Your task to perform on an android device: Open the Play Movies app and select the watchlist tab. Image 0: 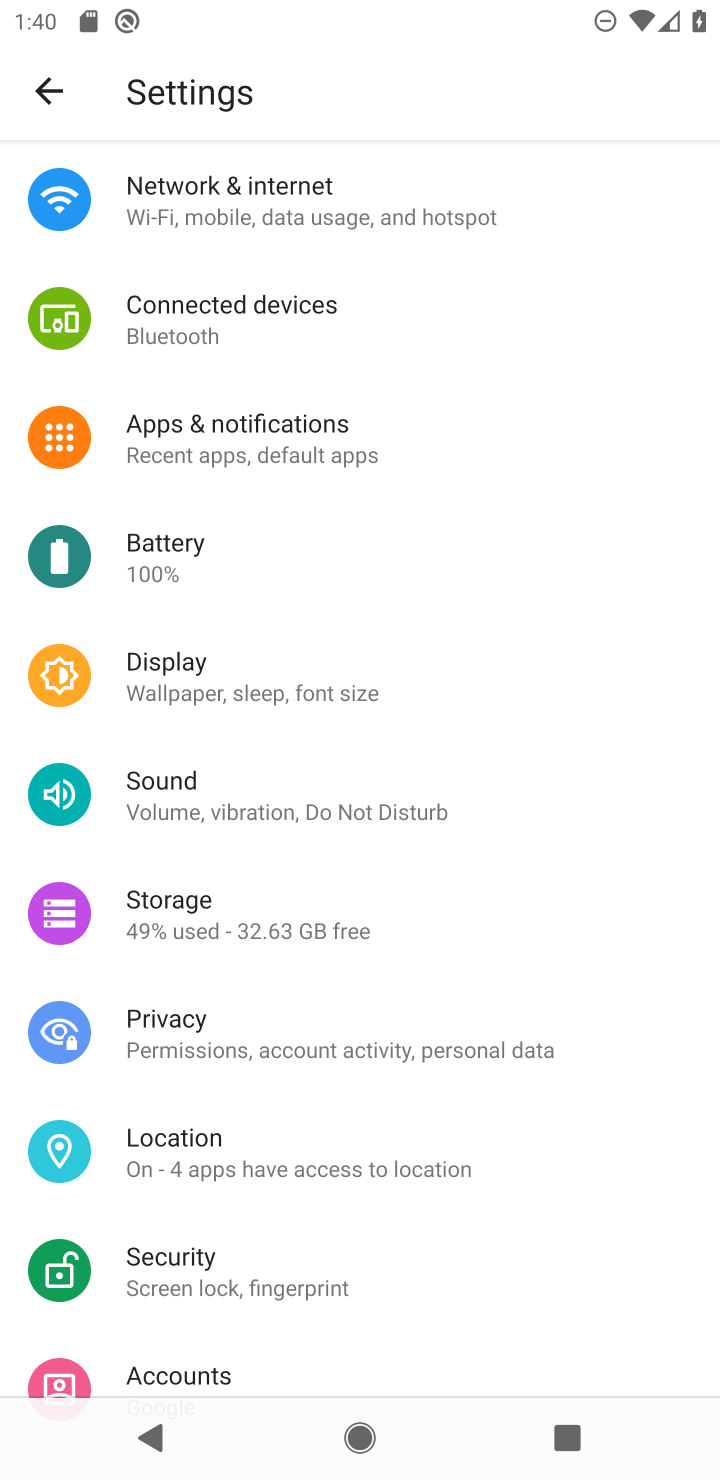
Step 0: press home button
Your task to perform on an android device: Open the Play Movies app and select the watchlist tab. Image 1: 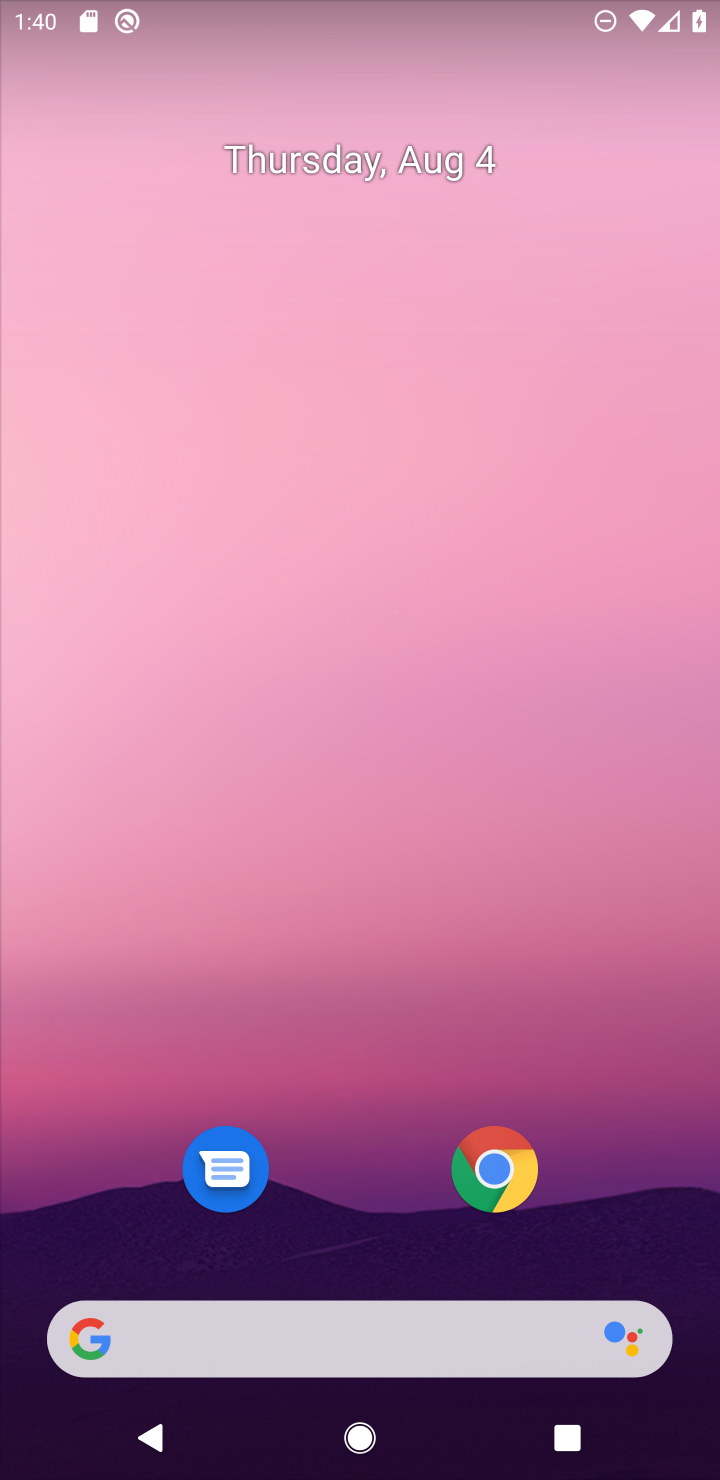
Step 1: drag from (408, 976) to (426, 40)
Your task to perform on an android device: Open the Play Movies app and select the watchlist tab. Image 2: 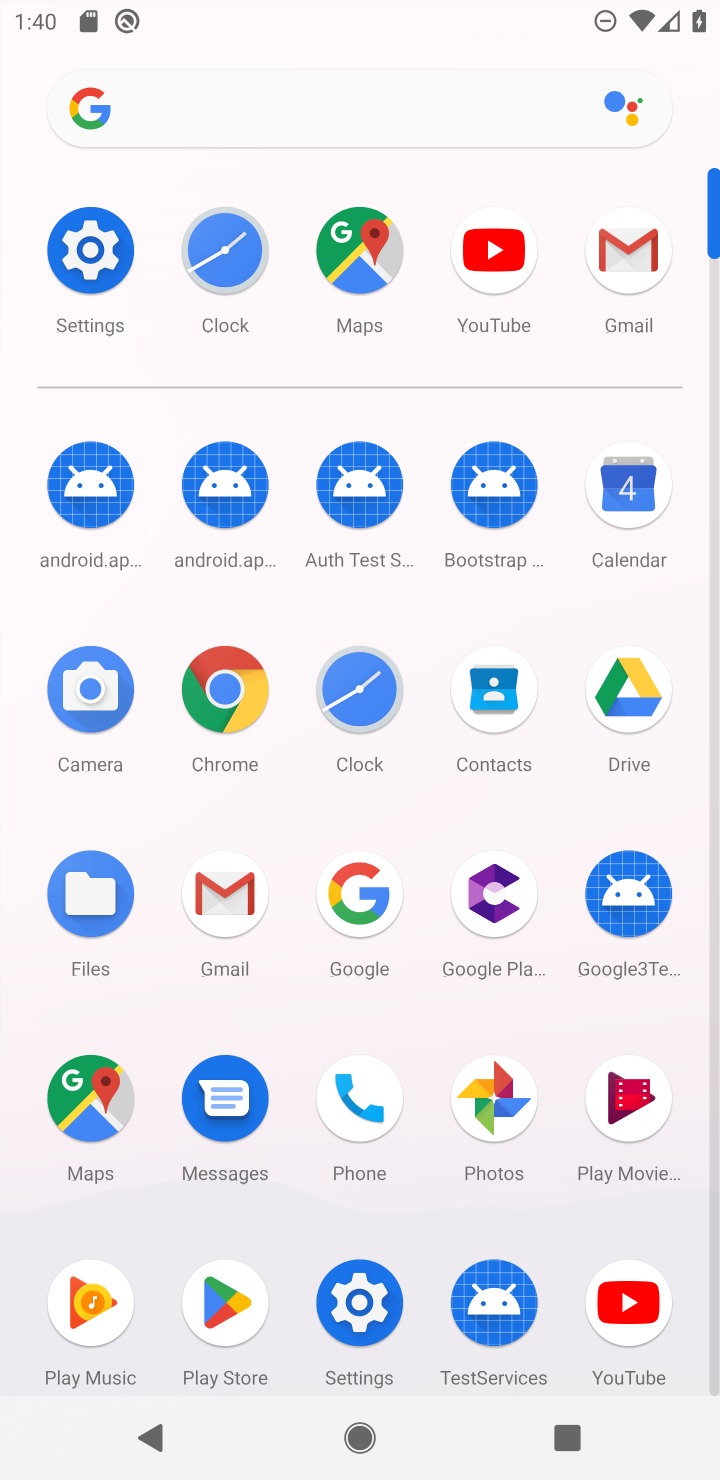
Step 2: click (630, 1088)
Your task to perform on an android device: Open the Play Movies app and select the watchlist tab. Image 3: 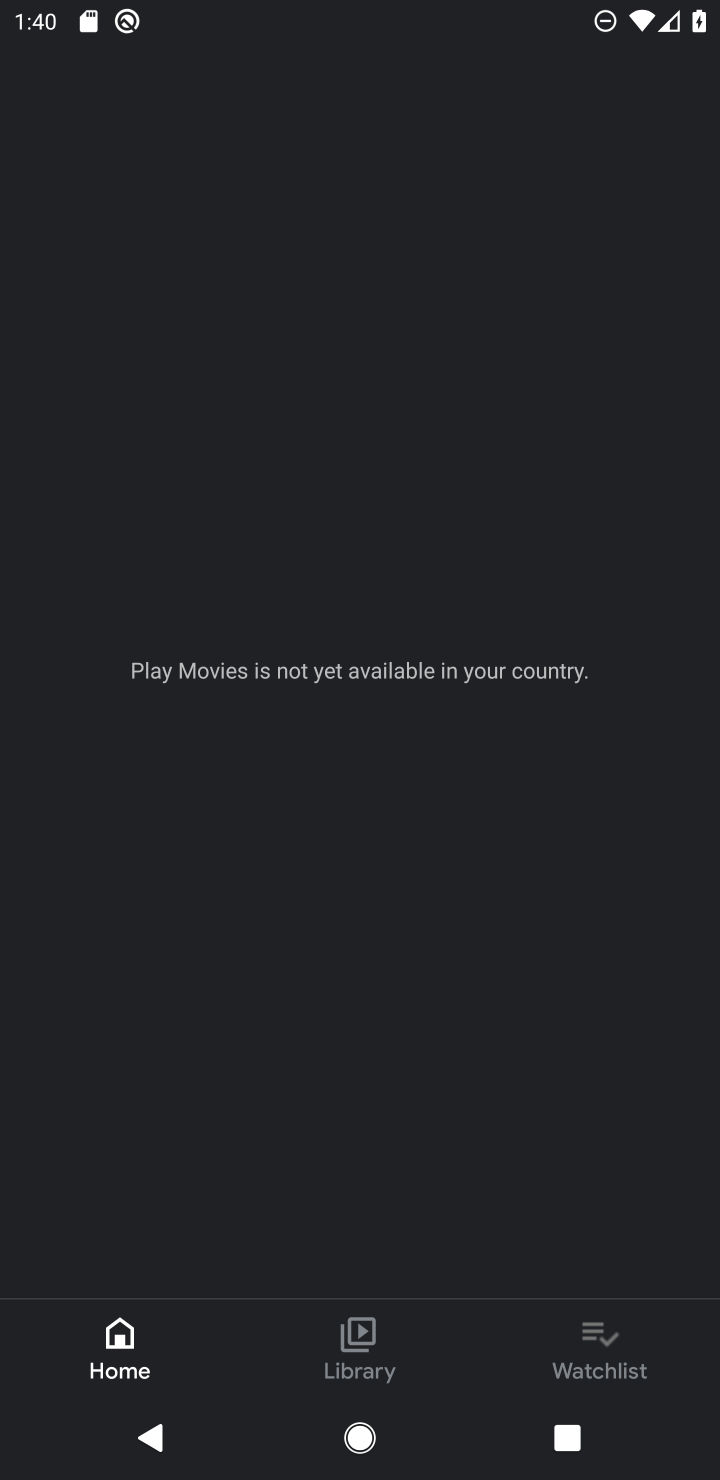
Step 3: click (580, 1344)
Your task to perform on an android device: Open the Play Movies app and select the watchlist tab. Image 4: 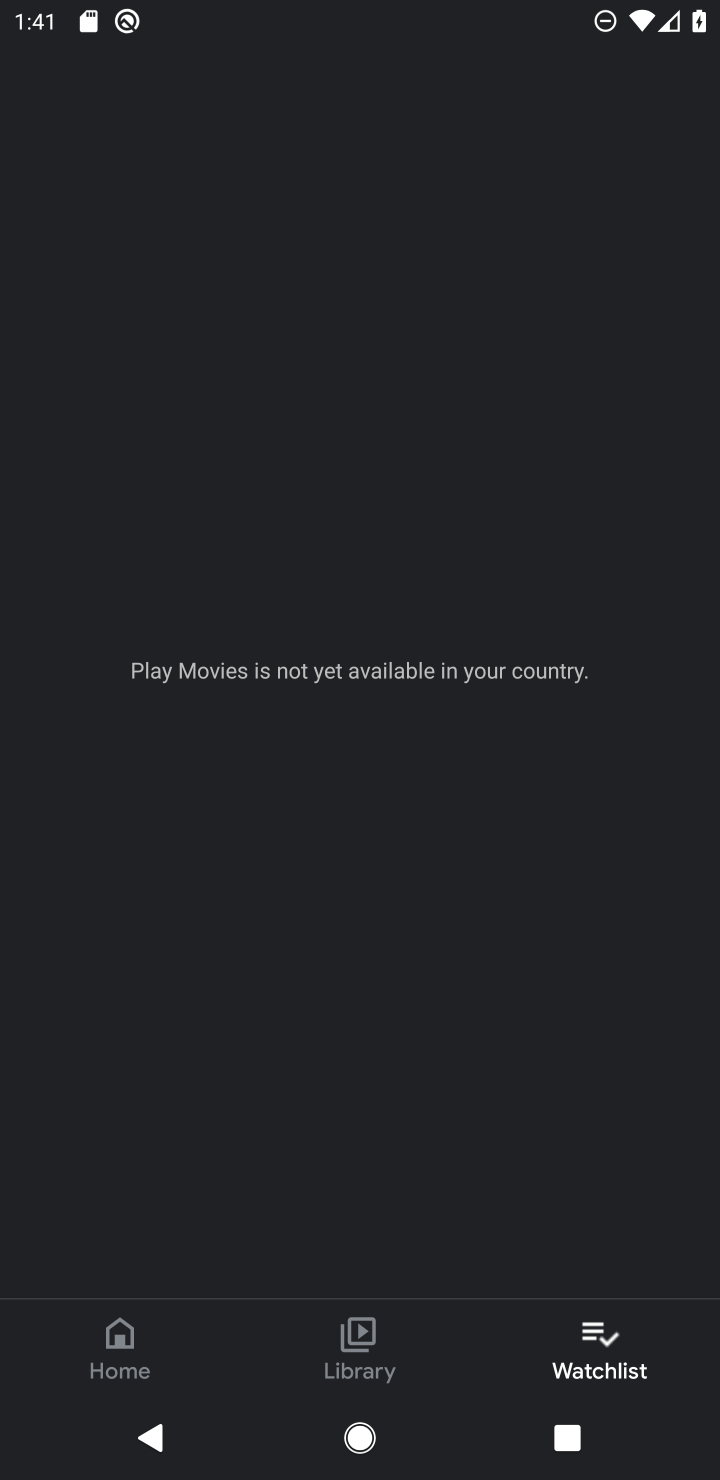
Step 4: task complete